Your task to perform on an android device: turn vacation reply on in the gmail app Image 0: 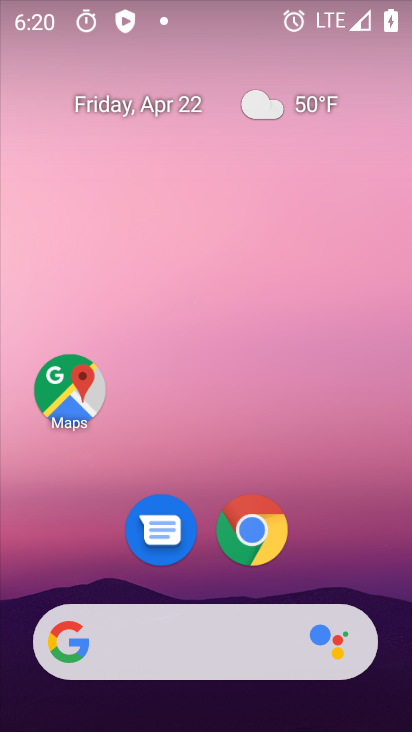
Step 0: drag from (328, 382) to (283, 8)
Your task to perform on an android device: turn vacation reply on in the gmail app Image 1: 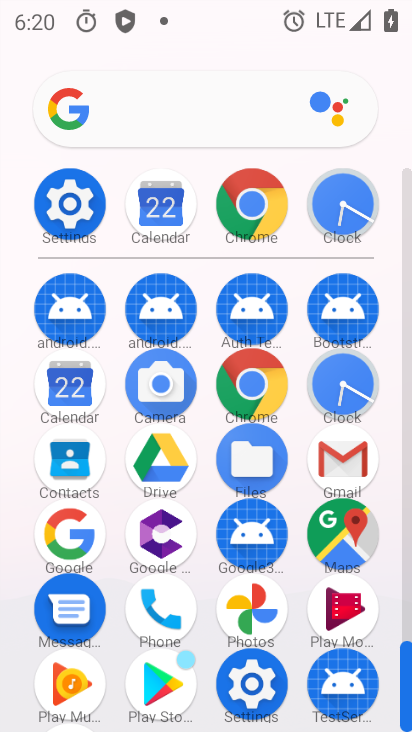
Step 1: click (350, 459)
Your task to perform on an android device: turn vacation reply on in the gmail app Image 2: 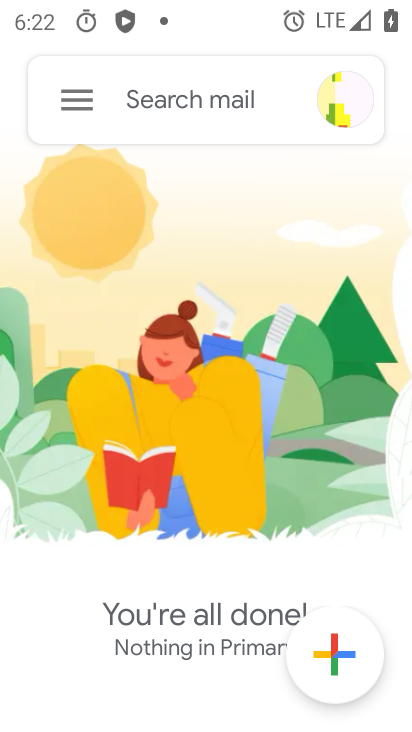
Step 2: click (74, 106)
Your task to perform on an android device: turn vacation reply on in the gmail app Image 3: 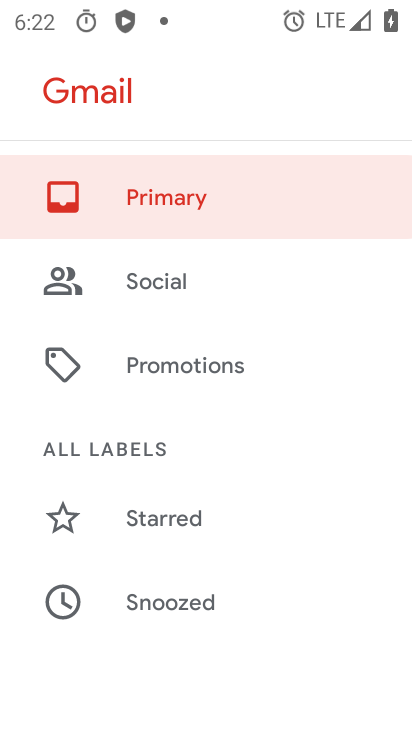
Step 3: drag from (215, 631) to (215, 95)
Your task to perform on an android device: turn vacation reply on in the gmail app Image 4: 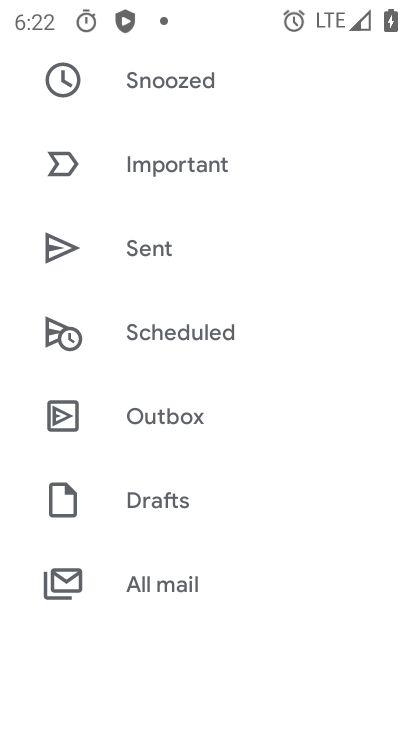
Step 4: drag from (267, 509) to (252, 93)
Your task to perform on an android device: turn vacation reply on in the gmail app Image 5: 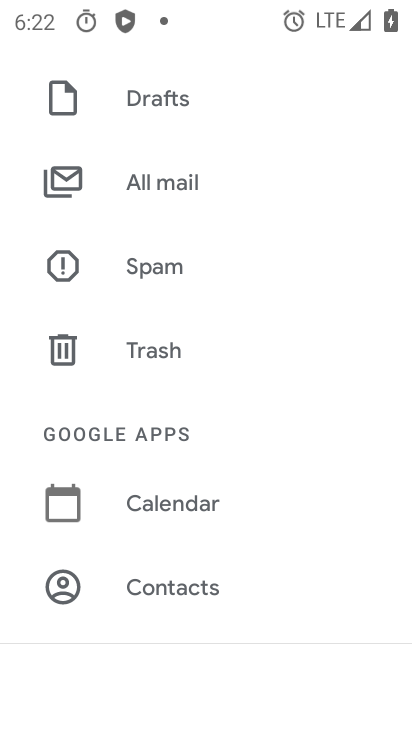
Step 5: drag from (228, 598) to (190, 157)
Your task to perform on an android device: turn vacation reply on in the gmail app Image 6: 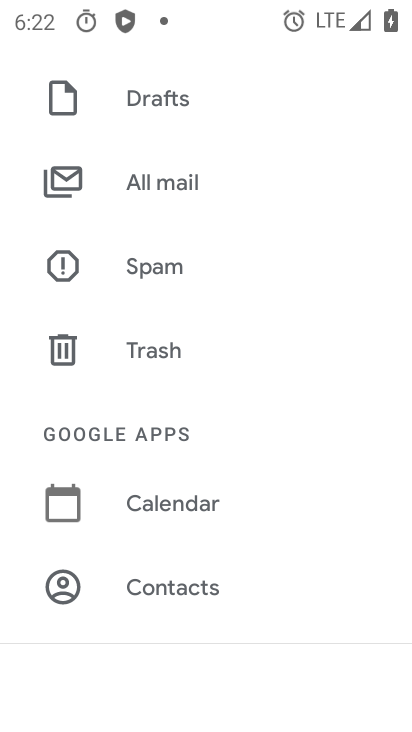
Step 6: drag from (234, 608) to (191, 260)
Your task to perform on an android device: turn vacation reply on in the gmail app Image 7: 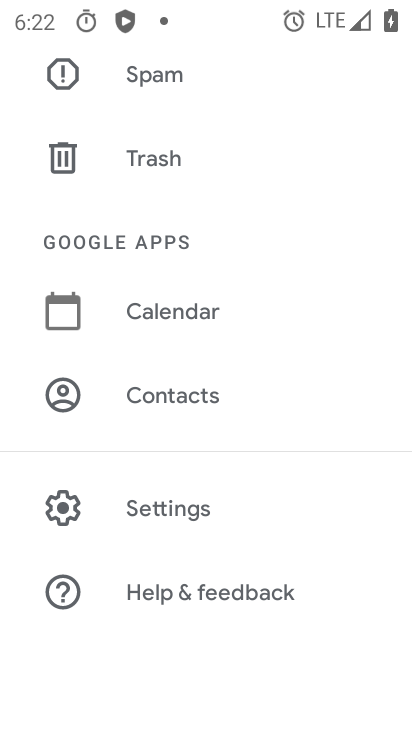
Step 7: click (176, 513)
Your task to perform on an android device: turn vacation reply on in the gmail app Image 8: 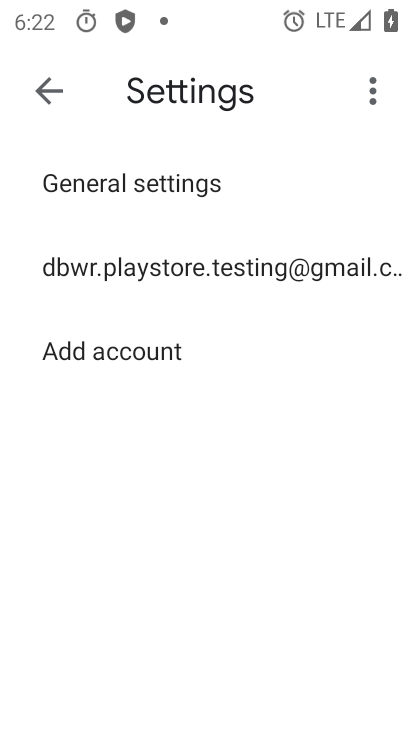
Step 8: click (182, 258)
Your task to perform on an android device: turn vacation reply on in the gmail app Image 9: 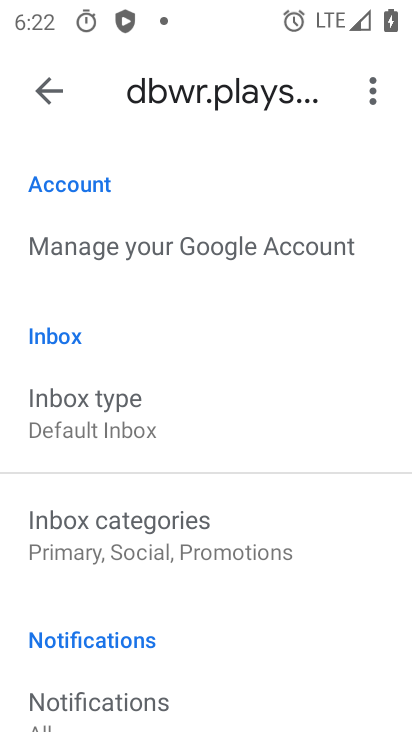
Step 9: drag from (338, 664) to (224, 176)
Your task to perform on an android device: turn vacation reply on in the gmail app Image 10: 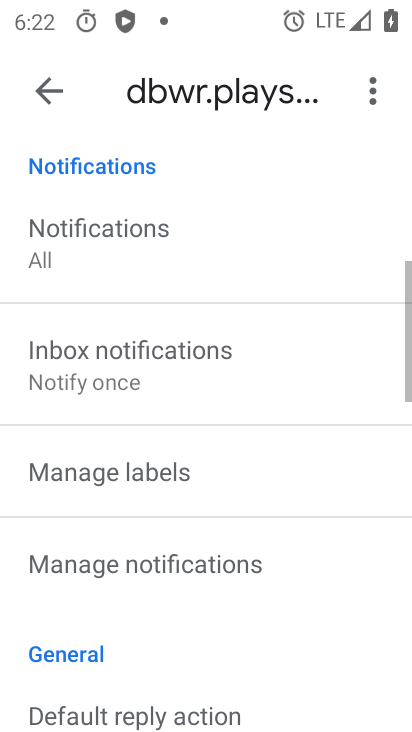
Step 10: drag from (282, 554) to (261, 155)
Your task to perform on an android device: turn vacation reply on in the gmail app Image 11: 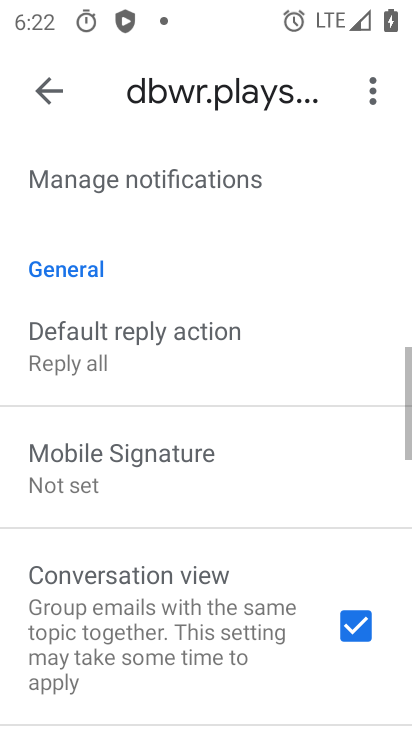
Step 11: drag from (280, 383) to (215, 144)
Your task to perform on an android device: turn vacation reply on in the gmail app Image 12: 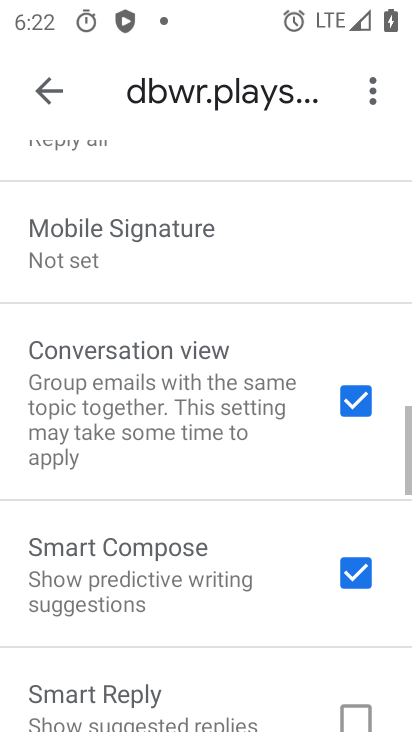
Step 12: drag from (288, 400) to (222, 123)
Your task to perform on an android device: turn vacation reply on in the gmail app Image 13: 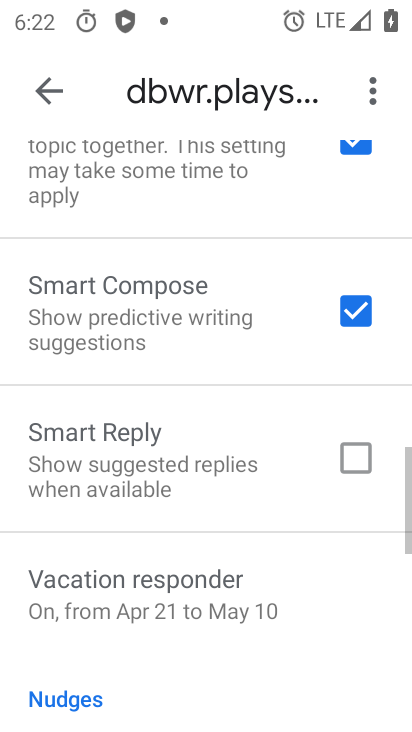
Step 13: drag from (347, 610) to (259, 297)
Your task to perform on an android device: turn vacation reply on in the gmail app Image 14: 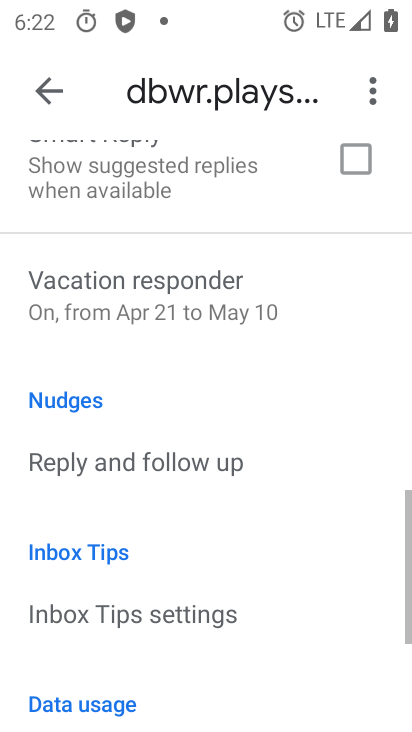
Step 14: click (248, 267)
Your task to perform on an android device: turn vacation reply on in the gmail app Image 15: 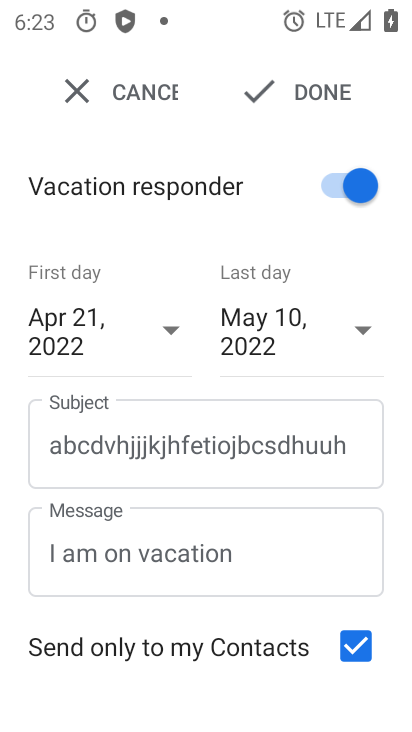
Step 15: click (166, 336)
Your task to perform on an android device: turn vacation reply on in the gmail app Image 16: 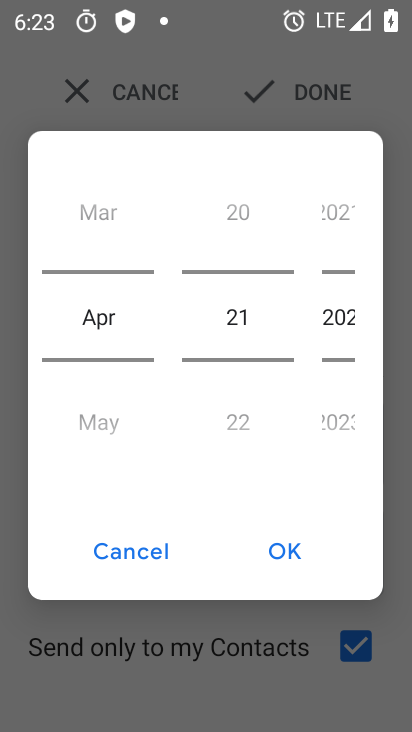
Step 16: drag from (229, 379) to (216, 207)
Your task to perform on an android device: turn vacation reply on in the gmail app Image 17: 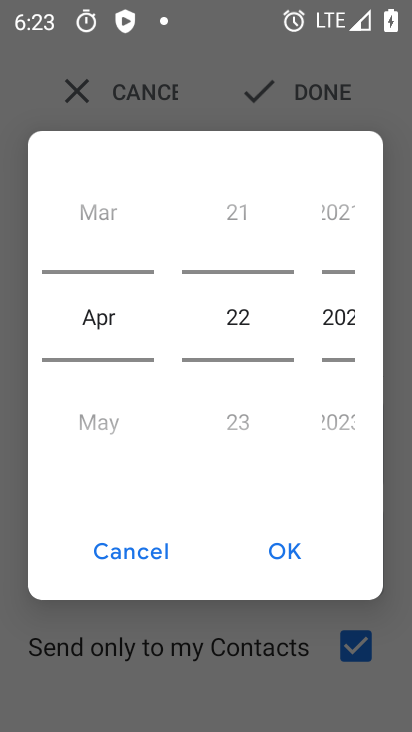
Step 17: click (328, 83)
Your task to perform on an android device: turn vacation reply on in the gmail app Image 18: 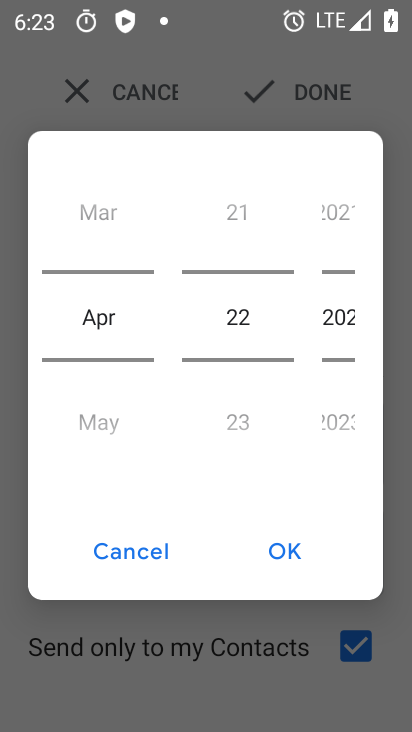
Step 18: click (295, 551)
Your task to perform on an android device: turn vacation reply on in the gmail app Image 19: 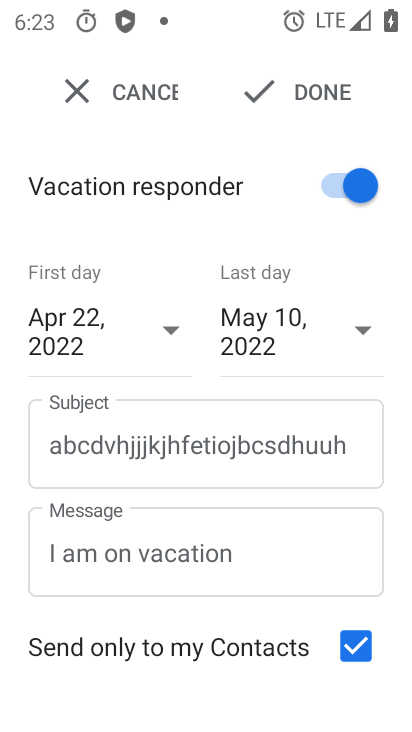
Step 19: click (269, 100)
Your task to perform on an android device: turn vacation reply on in the gmail app Image 20: 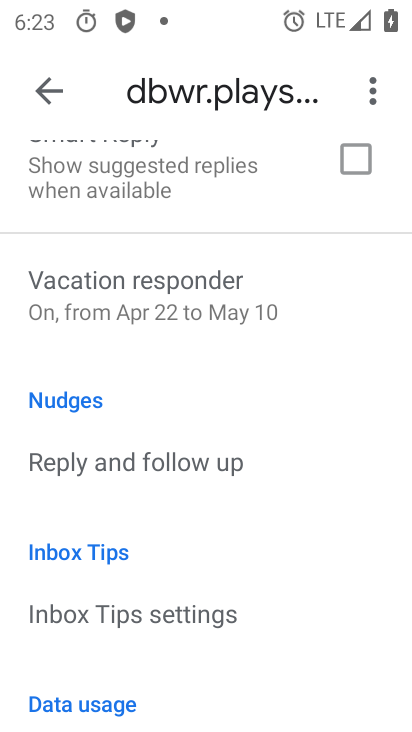
Step 20: task complete